Your task to perform on an android device: Open Yahoo.com Image 0: 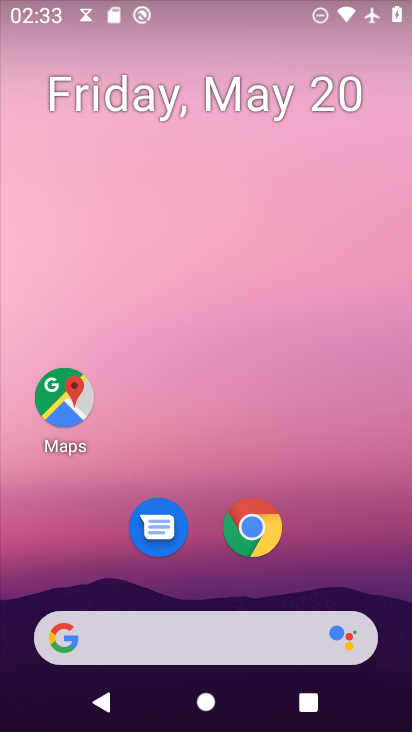
Step 0: press home button
Your task to perform on an android device: Open Yahoo.com Image 1: 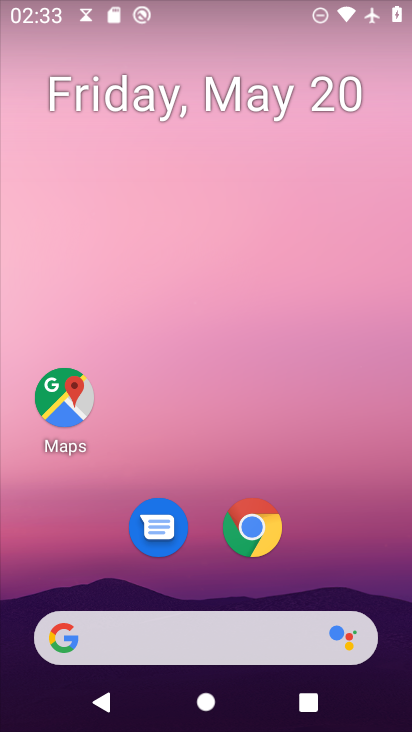
Step 1: click (256, 528)
Your task to perform on an android device: Open Yahoo.com Image 2: 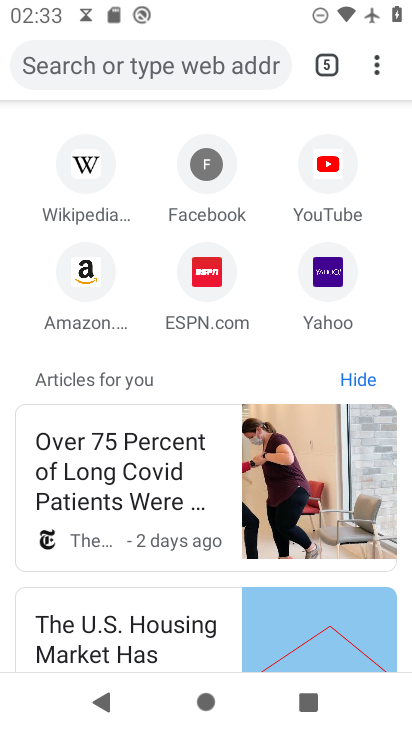
Step 2: click (331, 267)
Your task to perform on an android device: Open Yahoo.com Image 3: 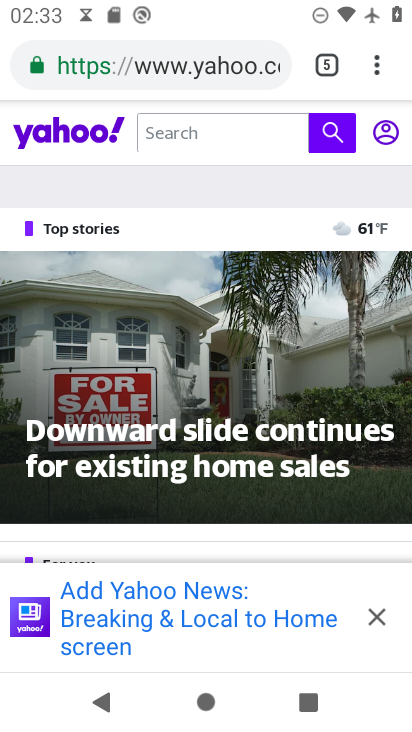
Step 3: task complete